Your task to perform on an android device: open app "DuckDuckGo Privacy Browser" (install if not already installed) and go to login screen Image 0: 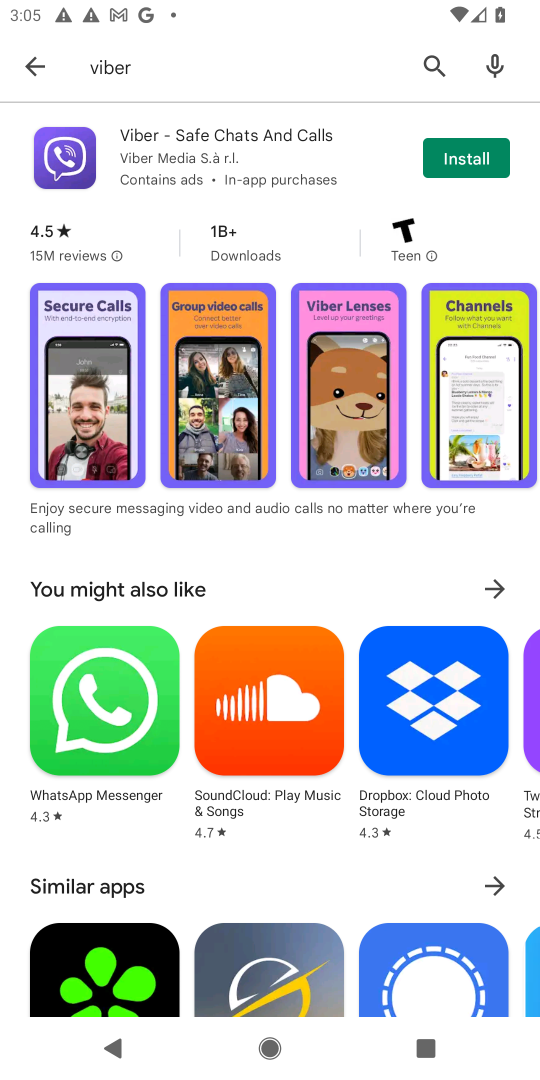
Step 0: click (431, 65)
Your task to perform on an android device: open app "DuckDuckGo Privacy Browser" (install if not already installed) and go to login screen Image 1: 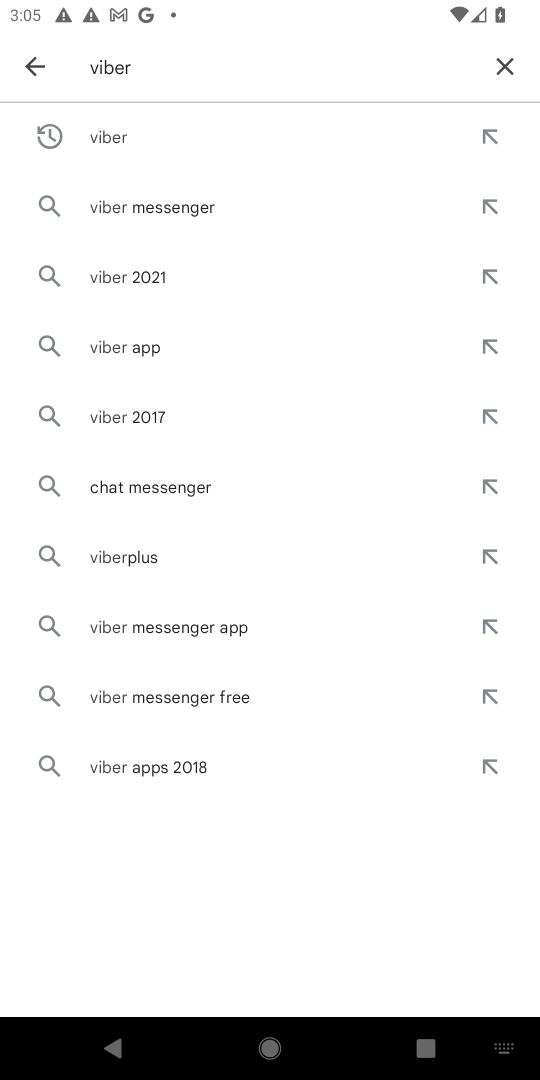
Step 1: click (500, 66)
Your task to perform on an android device: open app "DuckDuckGo Privacy Browser" (install if not already installed) and go to login screen Image 2: 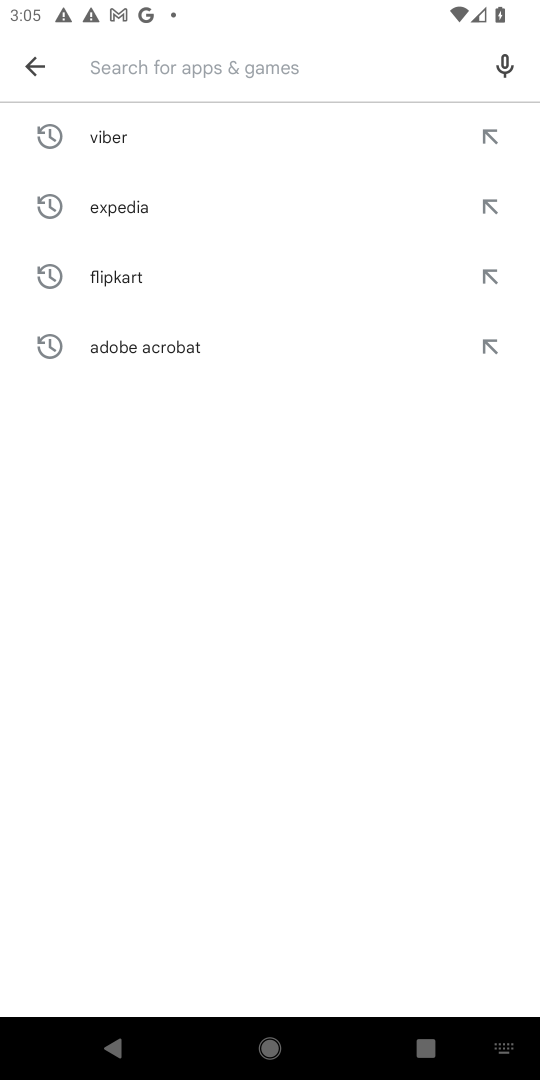
Step 2: type "duckduckgo"
Your task to perform on an android device: open app "DuckDuckGo Privacy Browser" (install if not already installed) and go to login screen Image 3: 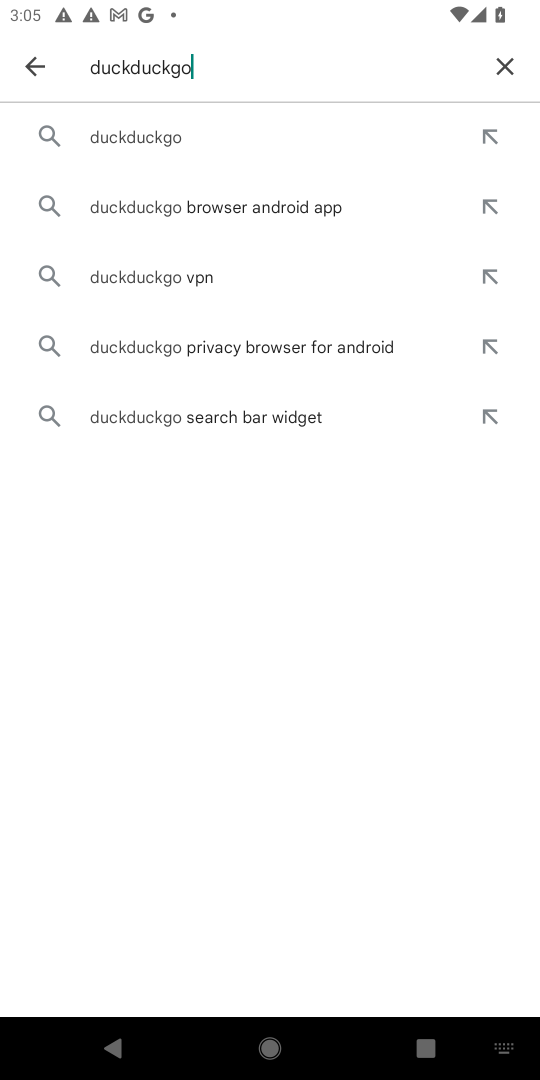
Step 3: click (146, 128)
Your task to perform on an android device: open app "DuckDuckGo Privacy Browser" (install if not already installed) and go to login screen Image 4: 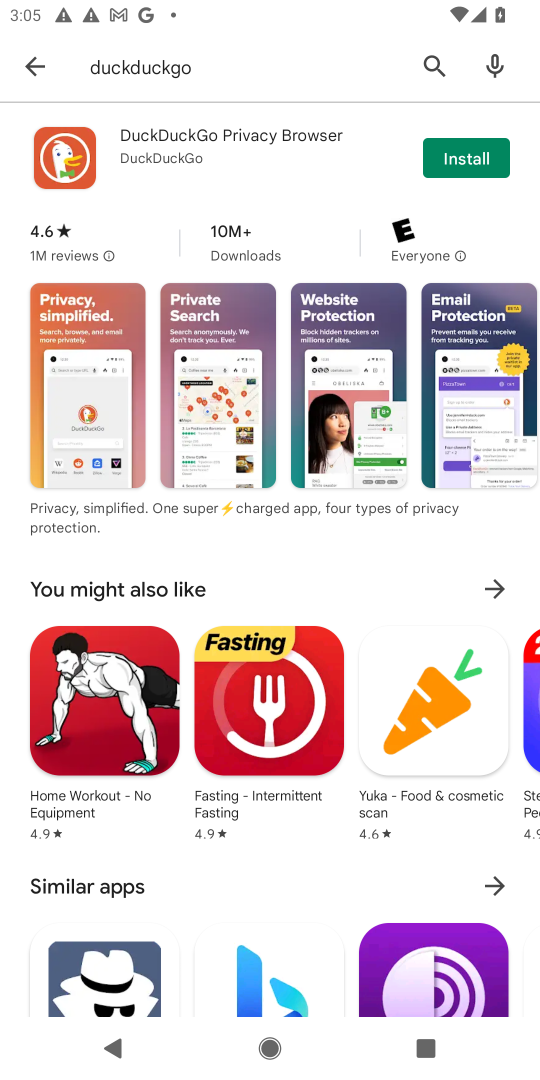
Step 4: click (477, 160)
Your task to perform on an android device: open app "DuckDuckGo Privacy Browser" (install if not already installed) and go to login screen Image 5: 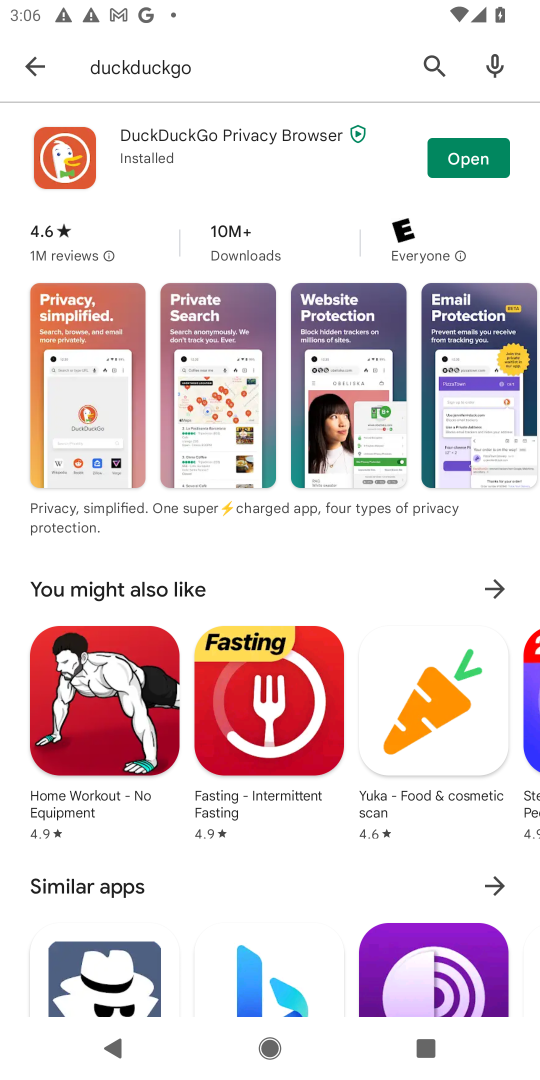
Step 5: click (440, 146)
Your task to perform on an android device: open app "DuckDuckGo Privacy Browser" (install if not already installed) and go to login screen Image 6: 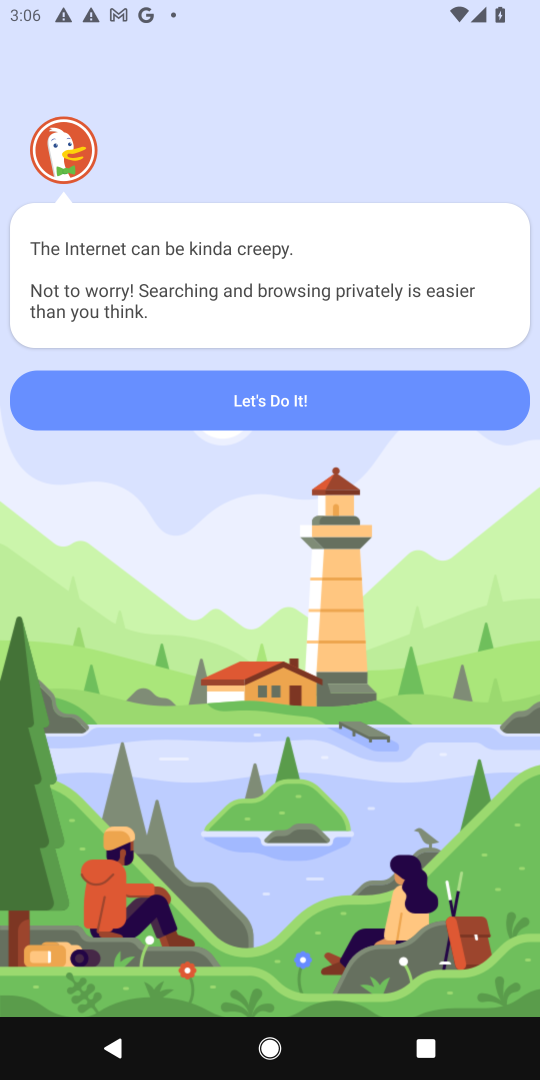
Step 6: task complete